Your task to perform on an android device: find snoozed emails in the gmail app Image 0: 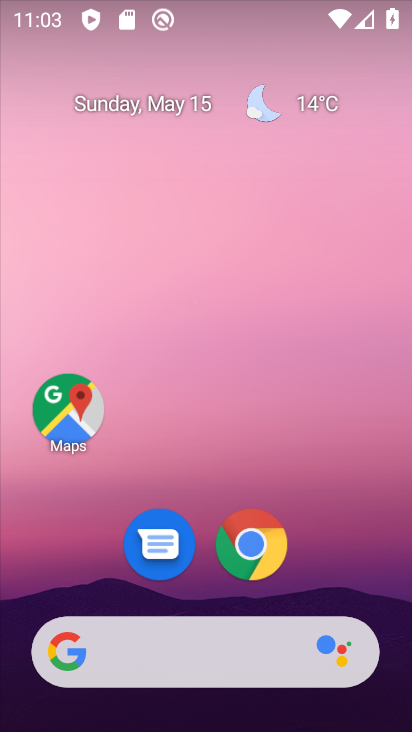
Step 0: drag from (85, 572) to (215, 112)
Your task to perform on an android device: find snoozed emails in the gmail app Image 1: 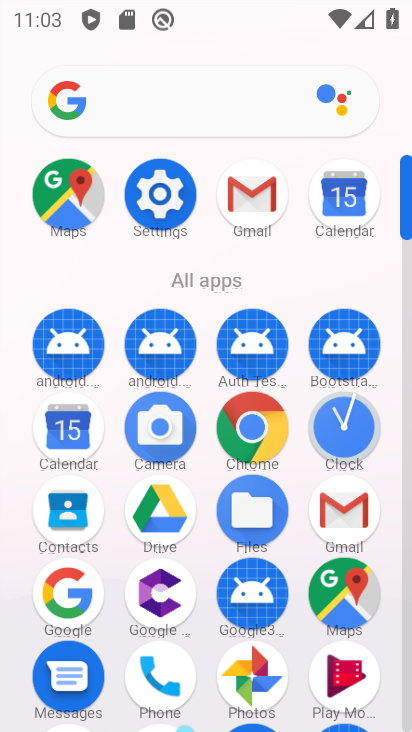
Step 1: drag from (217, 678) to (260, 584)
Your task to perform on an android device: find snoozed emails in the gmail app Image 2: 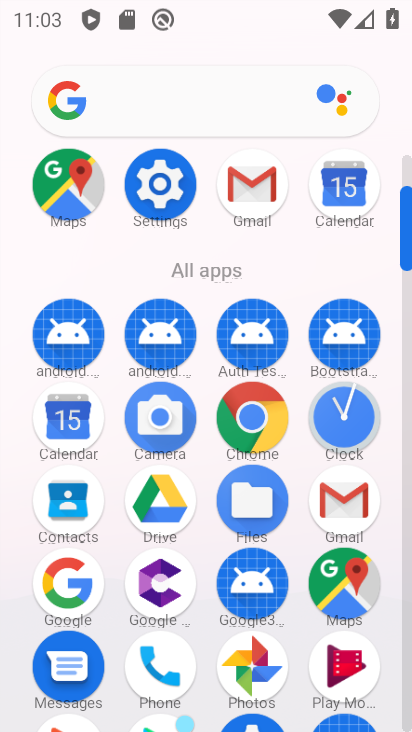
Step 2: click (350, 515)
Your task to perform on an android device: find snoozed emails in the gmail app Image 3: 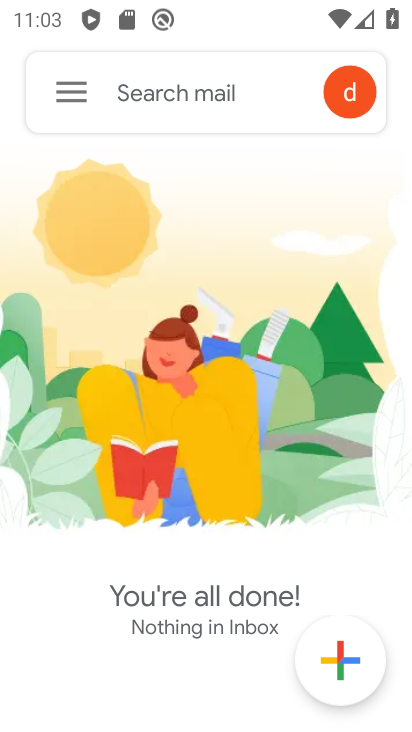
Step 3: click (67, 81)
Your task to perform on an android device: find snoozed emails in the gmail app Image 4: 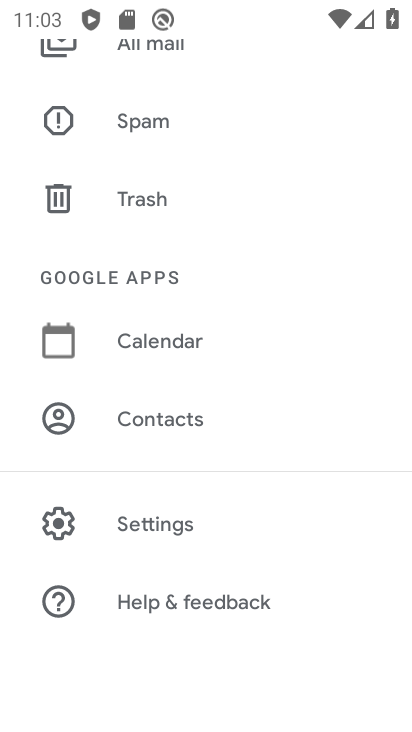
Step 4: drag from (192, 281) to (197, 593)
Your task to perform on an android device: find snoozed emails in the gmail app Image 5: 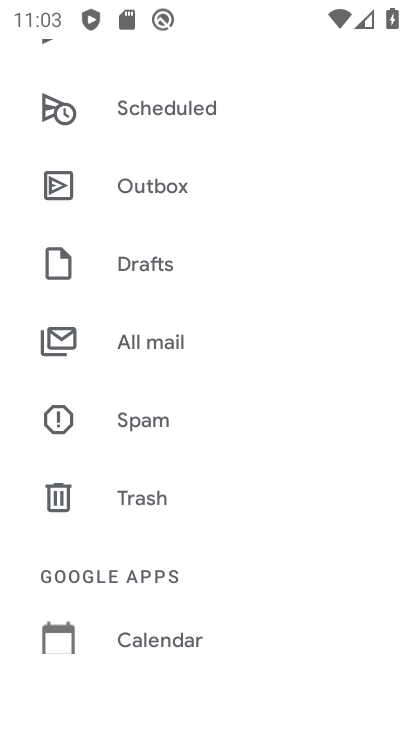
Step 5: drag from (285, 236) to (242, 529)
Your task to perform on an android device: find snoozed emails in the gmail app Image 6: 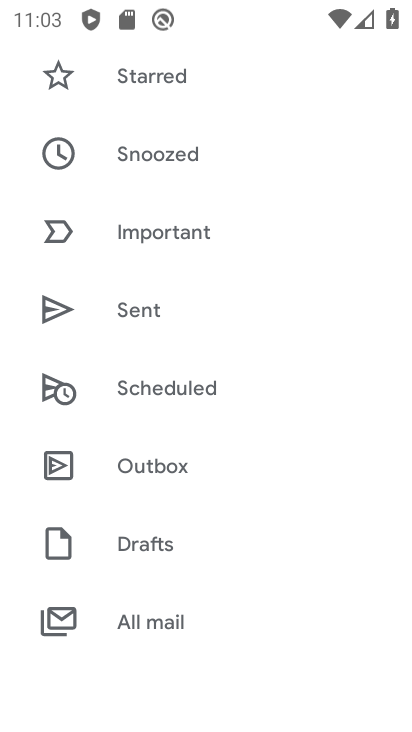
Step 6: drag from (261, 157) to (210, 378)
Your task to perform on an android device: find snoozed emails in the gmail app Image 7: 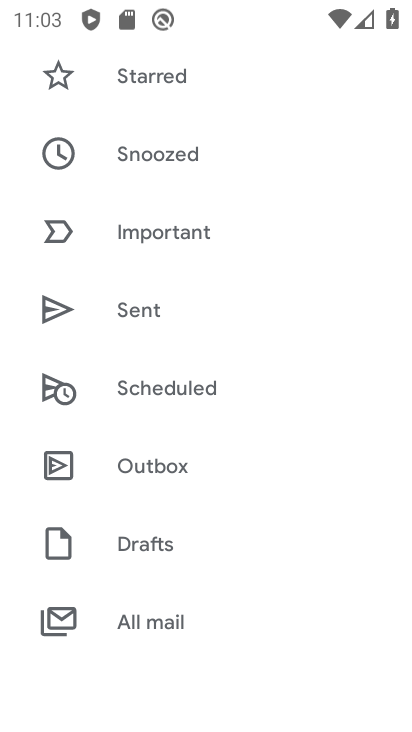
Step 7: click (164, 169)
Your task to perform on an android device: find snoozed emails in the gmail app Image 8: 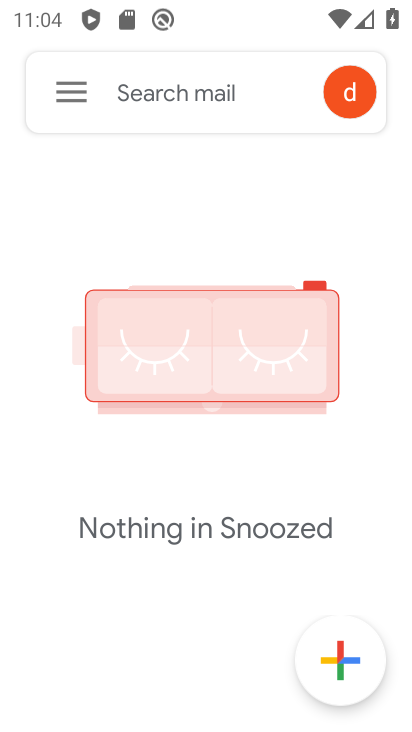
Step 8: task complete